Your task to perform on an android device: turn pop-ups off in chrome Image 0: 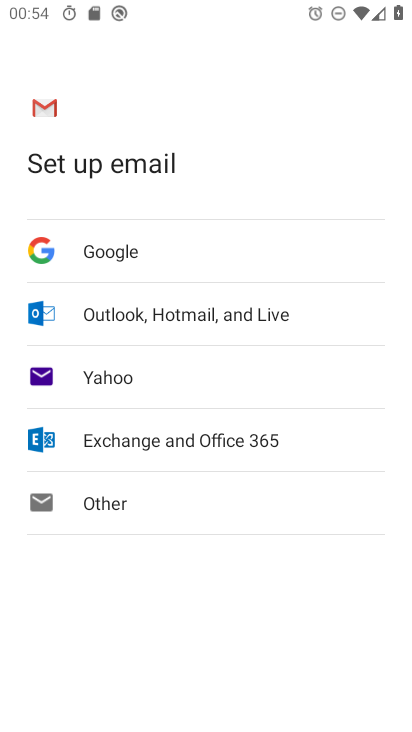
Step 0: press home button
Your task to perform on an android device: turn pop-ups off in chrome Image 1: 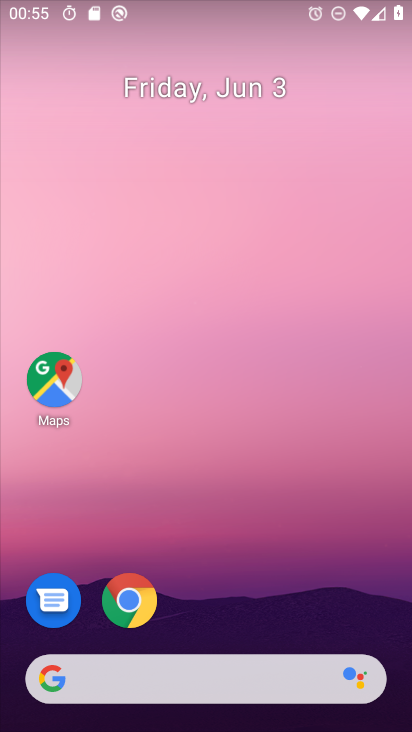
Step 1: click (132, 605)
Your task to perform on an android device: turn pop-ups off in chrome Image 2: 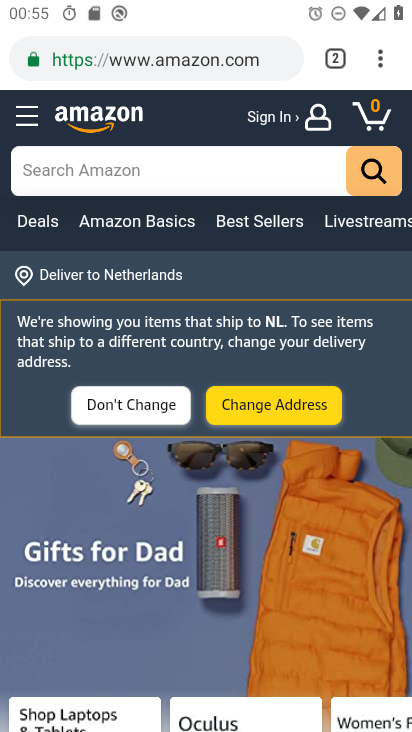
Step 2: click (372, 54)
Your task to perform on an android device: turn pop-ups off in chrome Image 3: 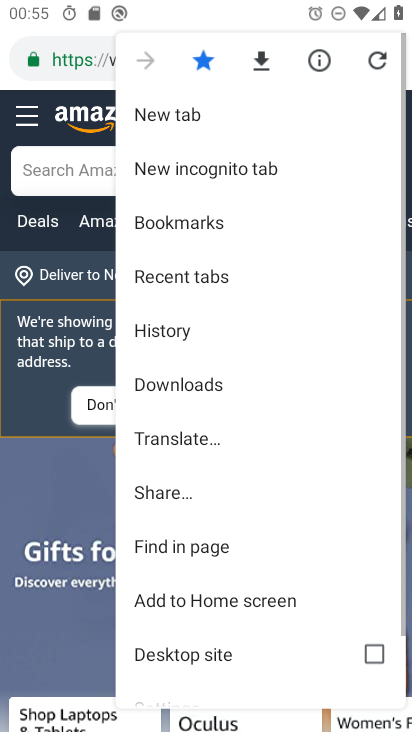
Step 3: drag from (246, 604) to (236, 200)
Your task to perform on an android device: turn pop-ups off in chrome Image 4: 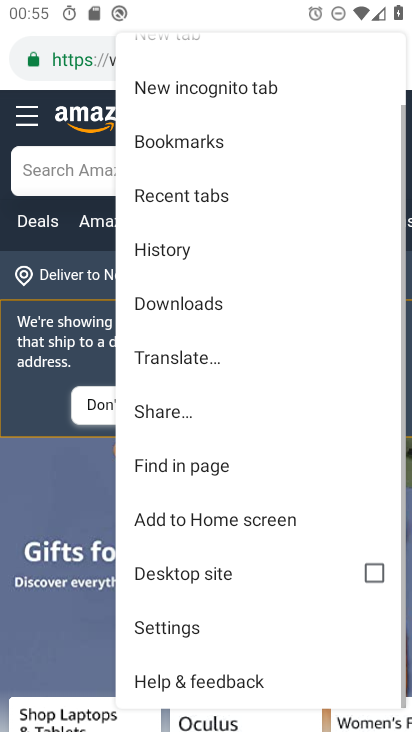
Step 4: click (184, 632)
Your task to perform on an android device: turn pop-ups off in chrome Image 5: 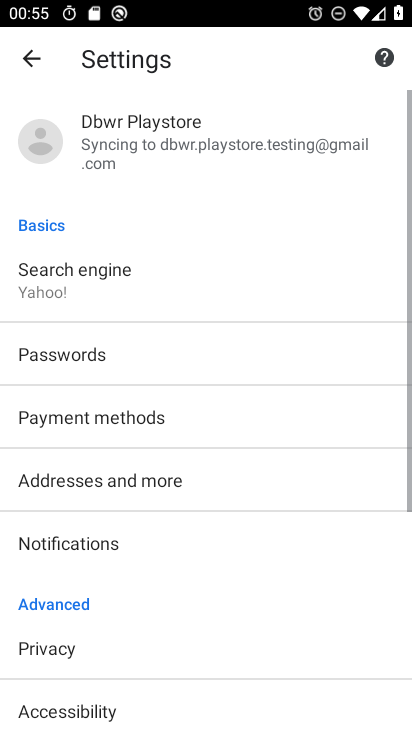
Step 5: drag from (211, 589) to (198, 177)
Your task to perform on an android device: turn pop-ups off in chrome Image 6: 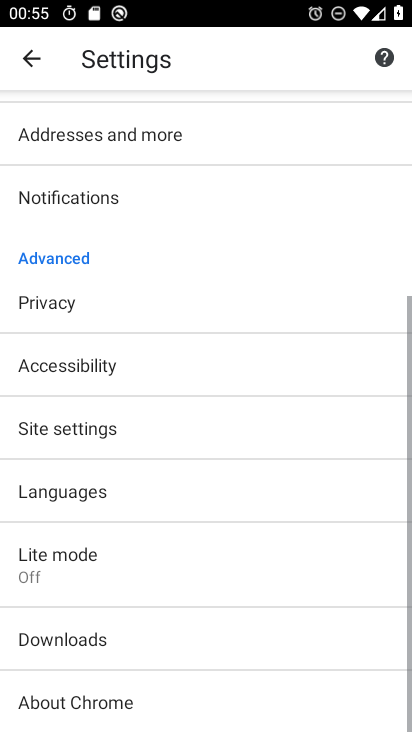
Step 6: click (134, 426)
Your task to perform on an android device: turn pop-ups off in chrome Image 7: 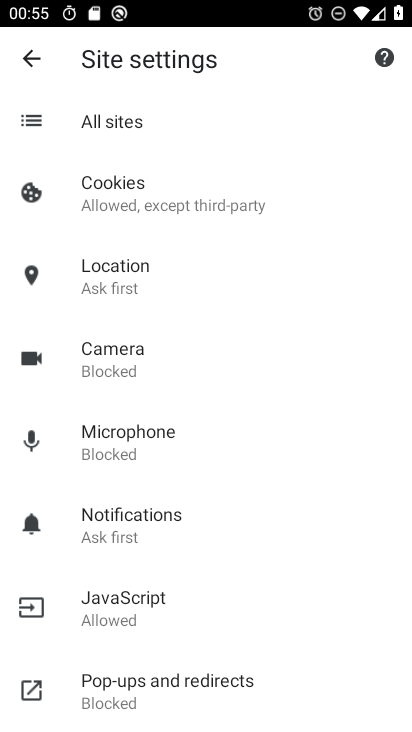
Step 7: click (196, 677)
Your task to perform on an android device: turn pop-ups off in chrome Image 8: 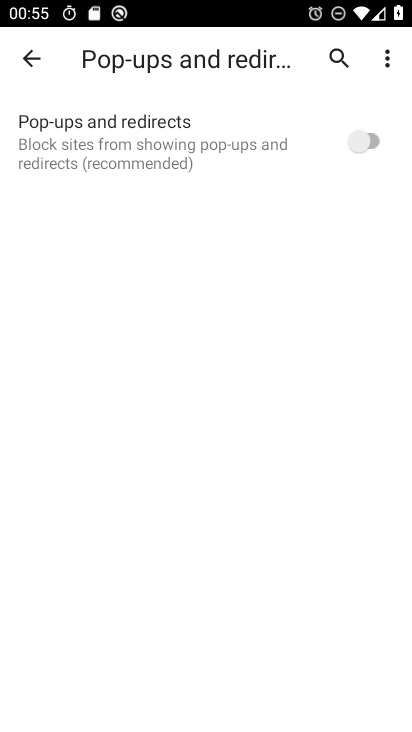
Step 8: task complete